Your task to perform on an android device: Open Google Chrome Image 0: 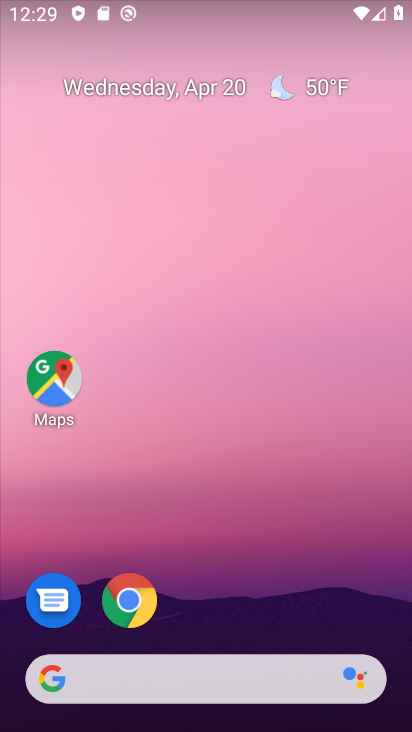
Step 0: click (127, 606)
Your task to perform on an android device: Open Google Chrome Image 1: 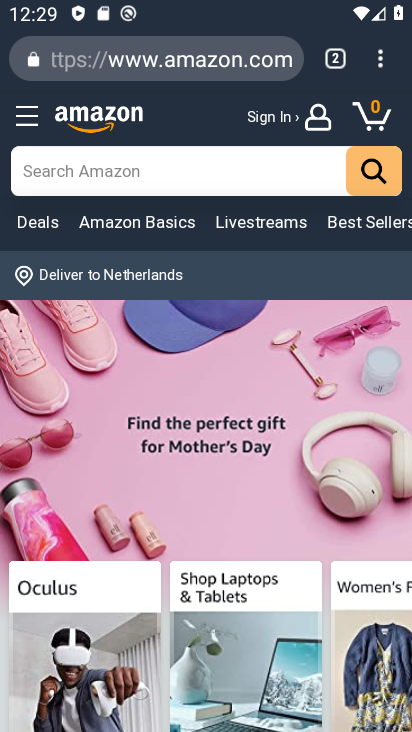
Step 1: task complete